Your task to perform on an android device: Open internet settings Image 0: 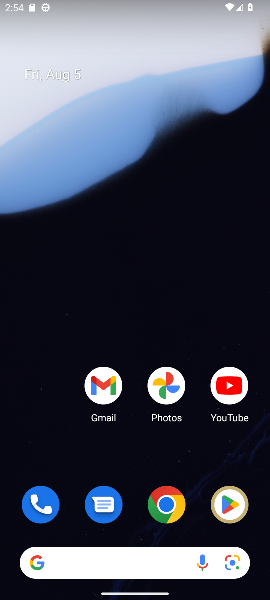
Step 0: drag from (25, 561) to (176, 185)
Your task to perform on an android device: Open internet settings Image 1: 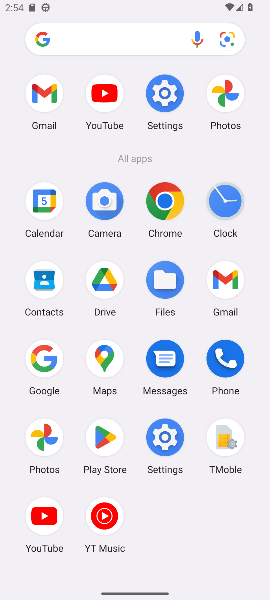
Step 1: click (155, 449)
Your task to perform on an android device: Open internet settings Image 2: 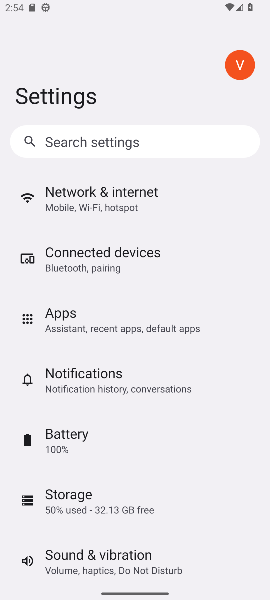
Step 2: click (119, 200)
Your task to perform on an android device: Open internet settings Image 3: 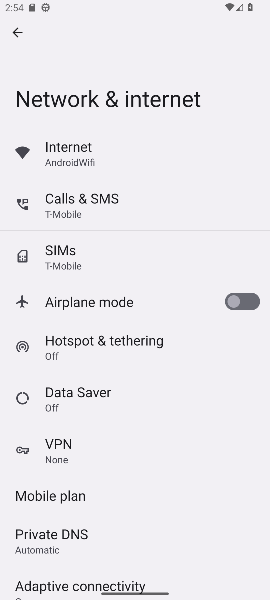
Step 3: task complete